Your task to perform on an android device: toggle improve location accuracy Image 0: 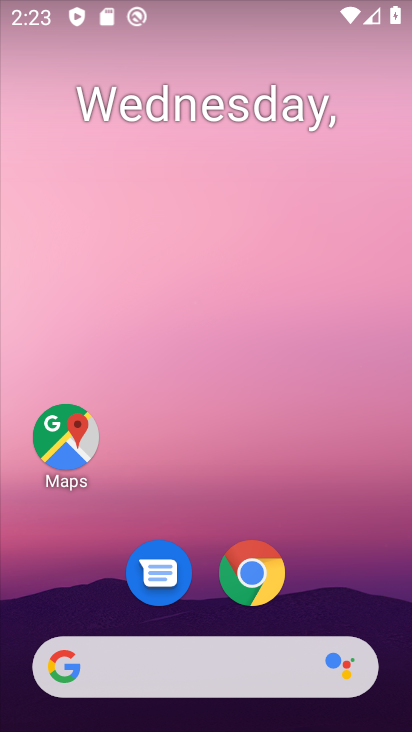
Step 0: drag from (202, 622) to (224, 223)
Your task to perform on an android device: toggle improve location accuracy Image 1: 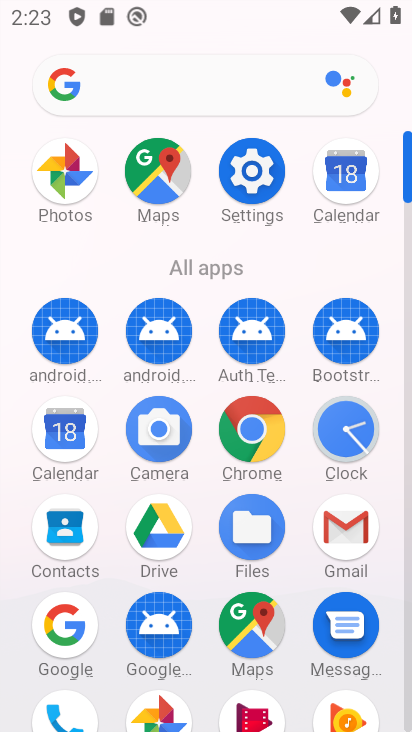
Step 1: click (258, 193)
Your task to perform on an android device: toggle improve location accuracy Image 2: 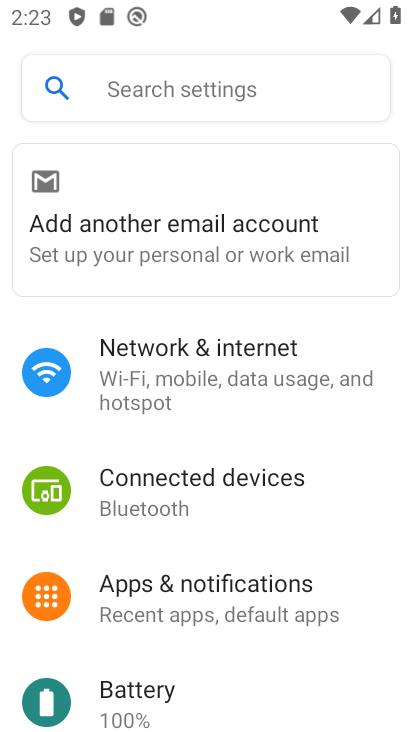
Step 2: drag from (181, 657) to (204, 391)
Your task to perform on an android device: toggle improve location accuracy Image 3: 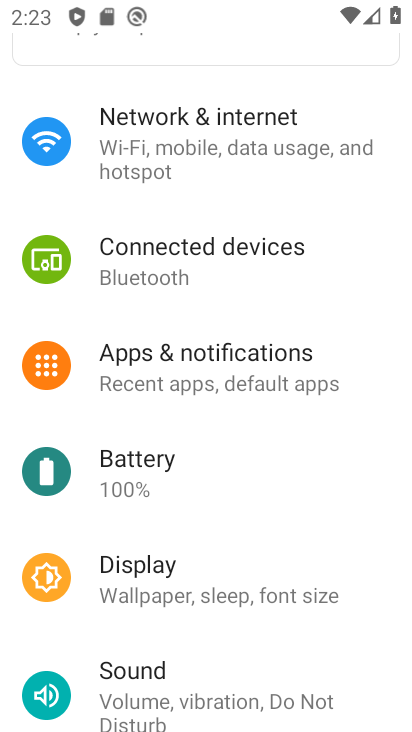
Step 3: drag from (210, 616) to (245, 396)
Your task to perform on an android device: toggle improve location accuracy Image 4: 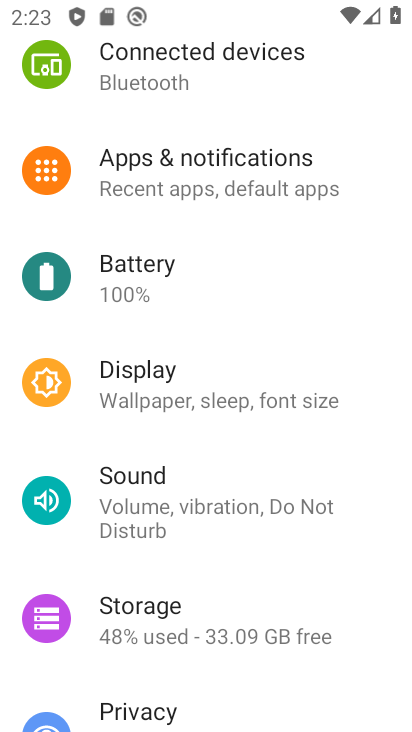
Step 4: drag from (209, 638) to (226, 432)
Your task to perform on an android device: toggle improve location accuracy Image 5: 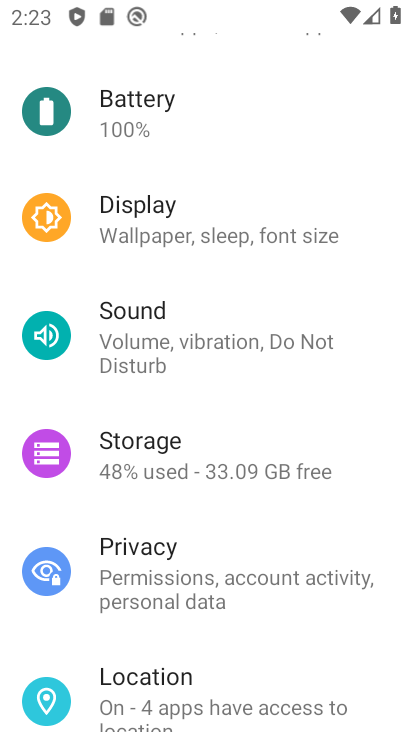
Step 5: click (190, 663)
Your task to perform on an android device: toggle improve location accuracy Image 6: 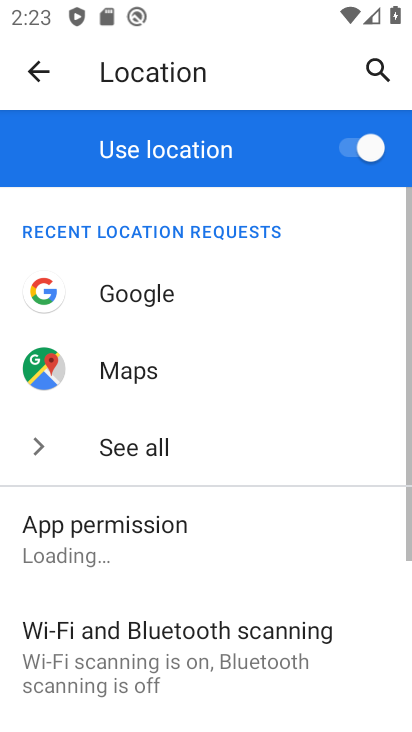
Step 6: drag from (197, 611) to (232, 322)
Your task to perform on an android device: toggle improve location accuracy Image 7: 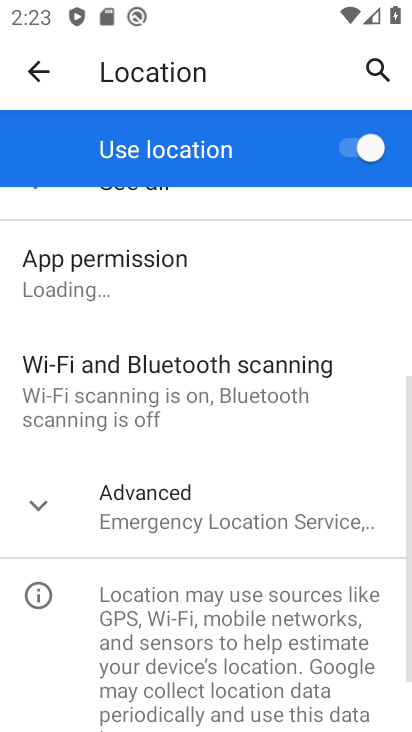
Step 7: click (210, 503)
Your task to perform on an android device: toggle improve location accuracy Image 8: 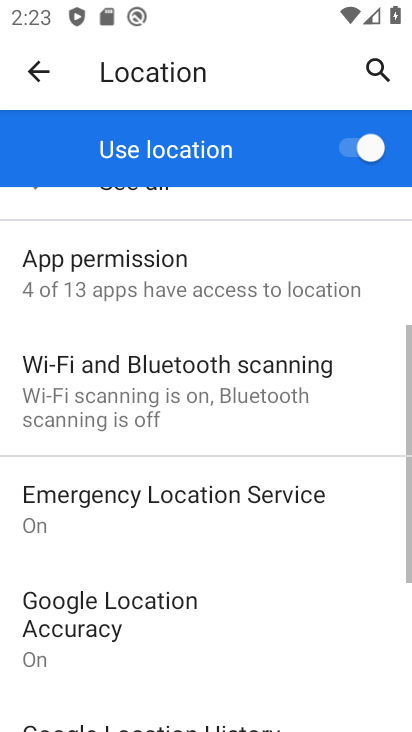
Step 8: drag from (238, 591) to (287, 366)
Your task to perform on an android device: toggle improve location accuracy Image 9: 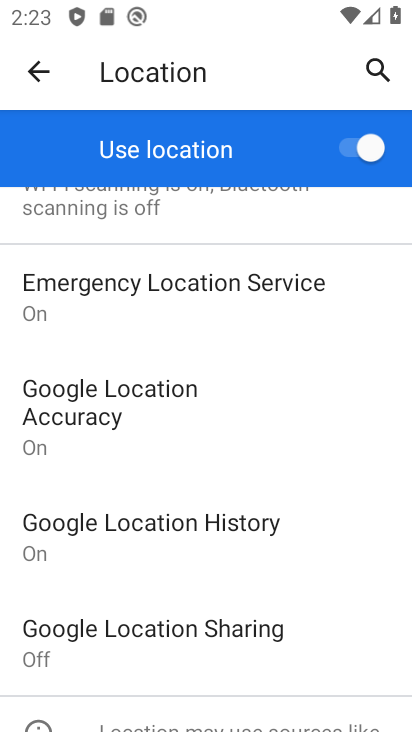
Step 9: click (158, 411)
Your task to perform on an android device: toggle improve location accuracy Image 10: 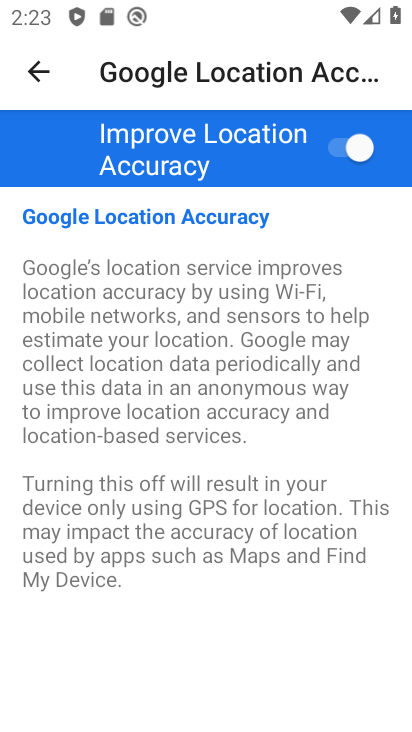
Step 10: click (337, 144)
Your task to perform on an android device: toggle improve location accuracy Image 11: 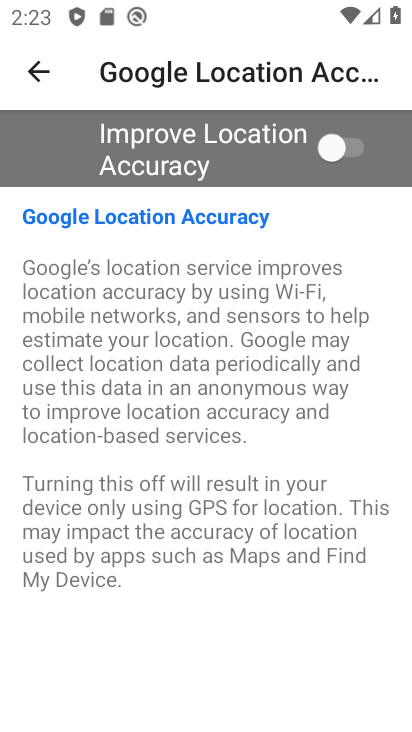
Step 11: task complete